Your task to perform on an android device: Open Maps and search for coffee Image 0: 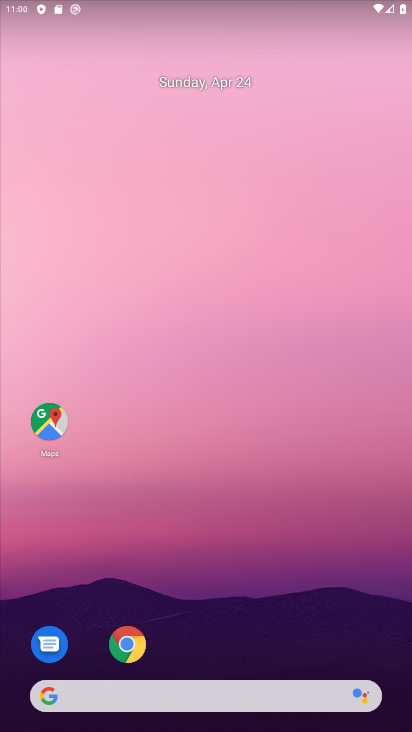
Step 0: click (44, 426)
Your task to perform on an android device: Open Maps and search for coffee Image 1: 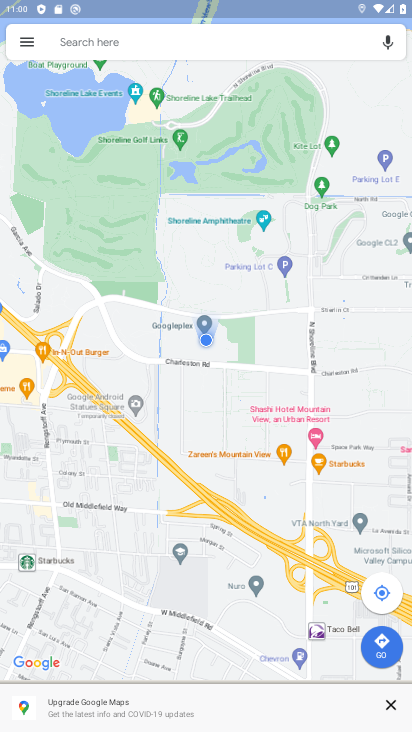
Step 1: click (103, 44)
Your task to perform on an android device: Open Maps and search for coffee Image 2: 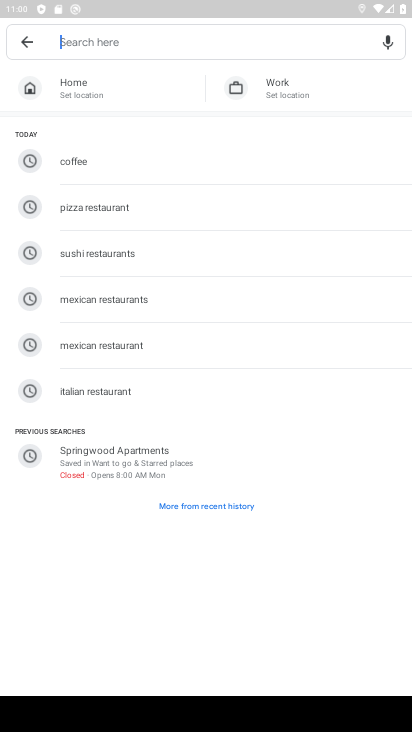
Step 2: type "coffee"
Your task to perform on an android device: Open Maps and search for coffee Image 3: 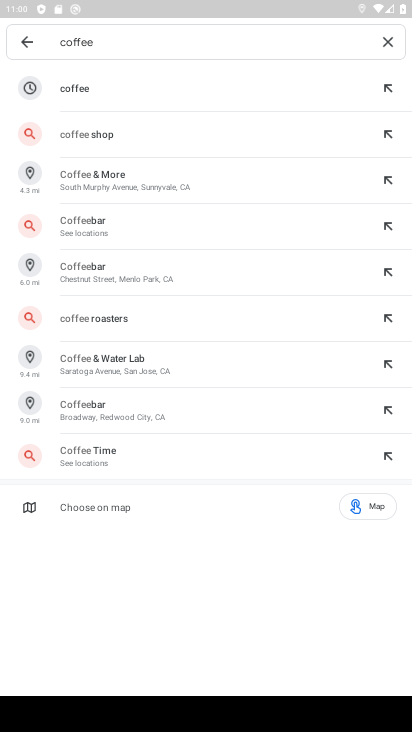
Step 3: click (74, 94)
Your task to perform on an android device: Open Maps and search for coffee Image 4: 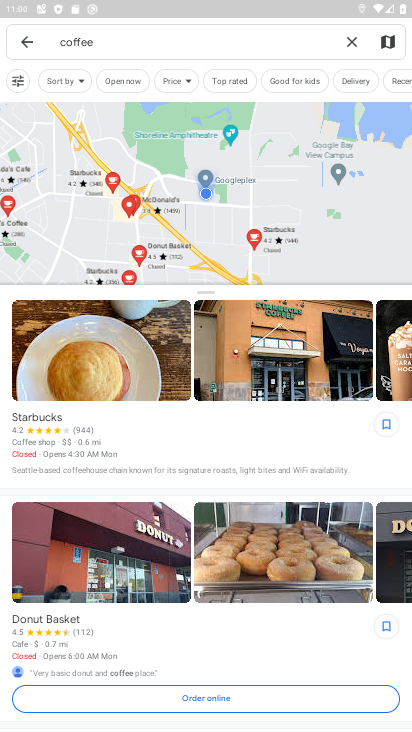
Step 4: task complete